Your task to perform on an android device: all mails in gmail Image 0: 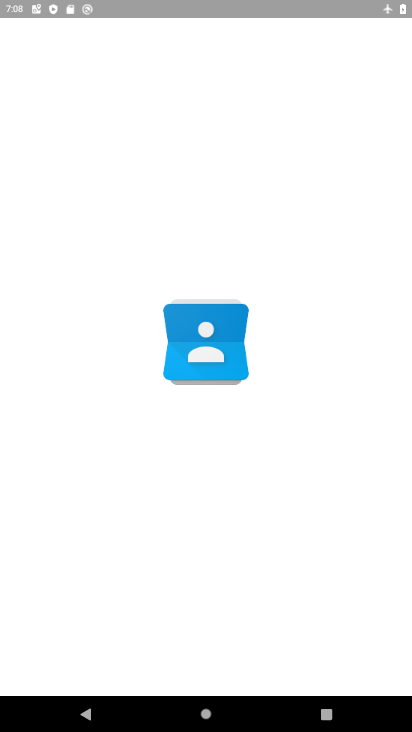
Step 0: drag from (242, 602) to (99, 196)
Your task to perform on an android device: all mails in gmail Image 1: 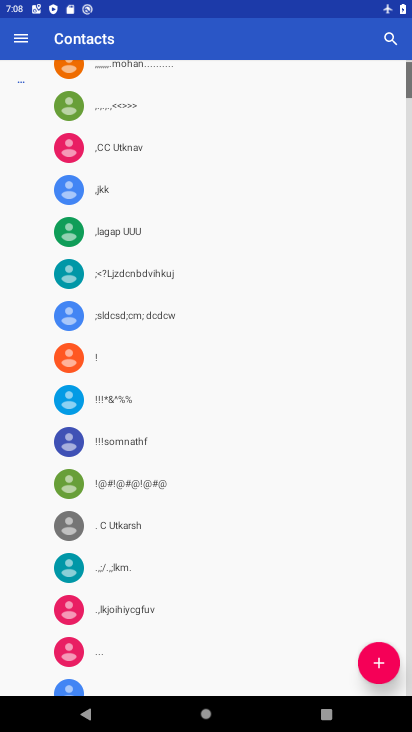
Step 1: press home button
Your task to perform on an android device: all mails in gmail Image 2: 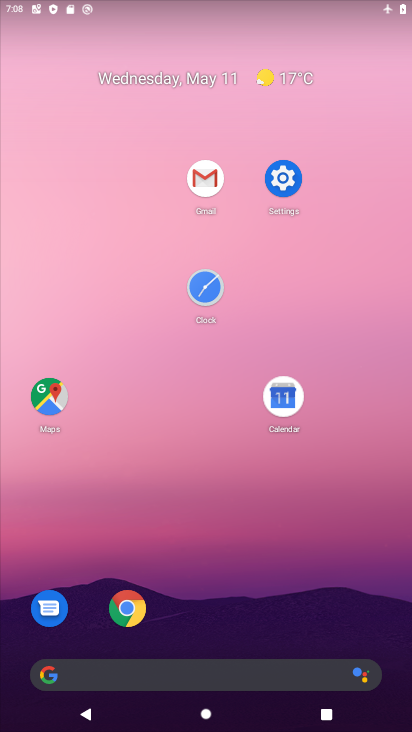
Step 2: click (209, 208)
Your task to perform on an android device: all mails in gmail Image 3: 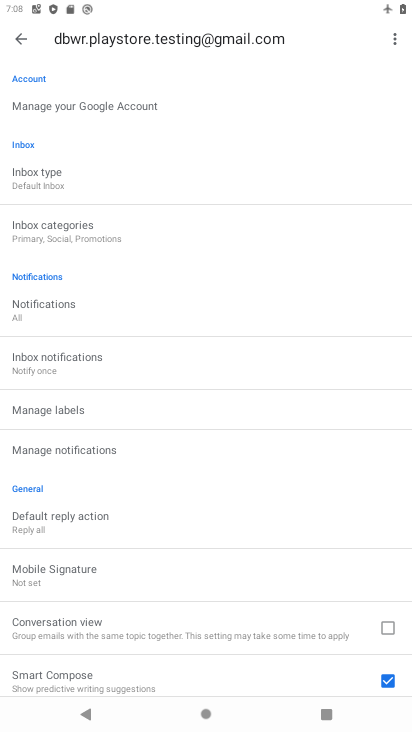
Step 3: click (16, 52)
Your task to perform on an android device: all mails in gmail Image 4: 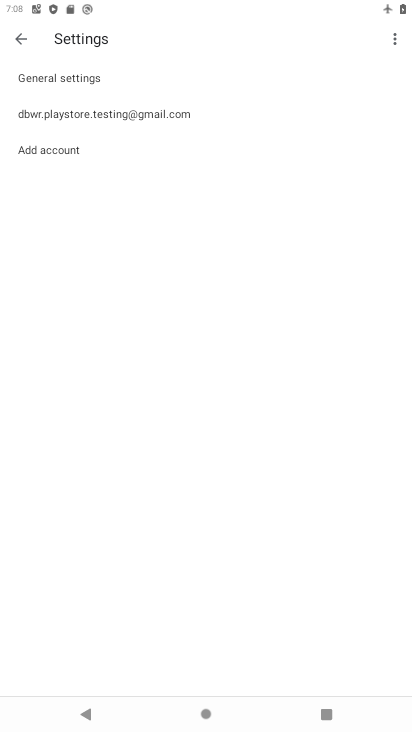
Step 4: click (16, 52)
Your task to perform on an android device: all mails in gmail Image 5: 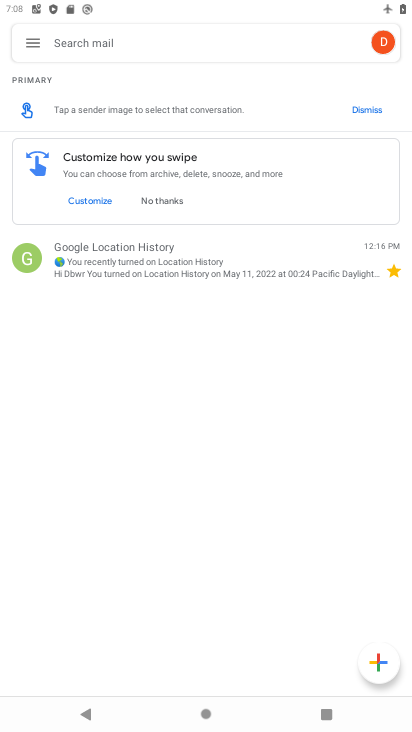
Step 5: click (37, 47)
Your task to perform on an android device: all mails in gmail Image 6: 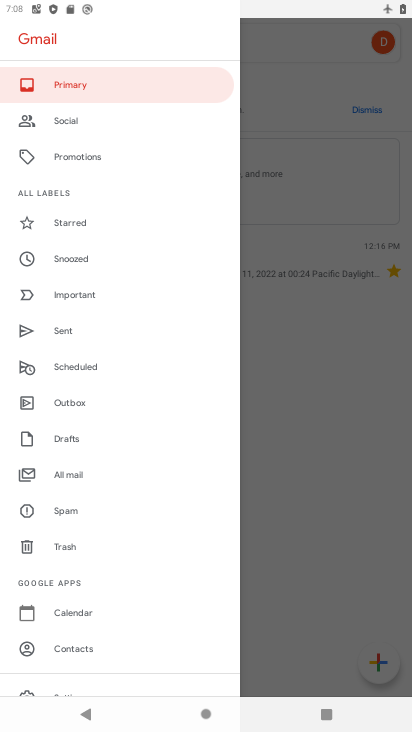
Step 6: click (94, 474)
Your task to perform on an android device: all mails in gmail Image 7: 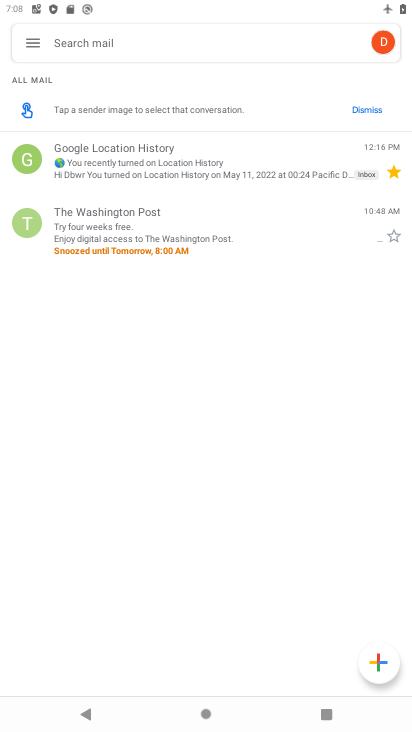
Step 7: task complete